Your task to perform on an android device: Go to CNN.com Image 0: 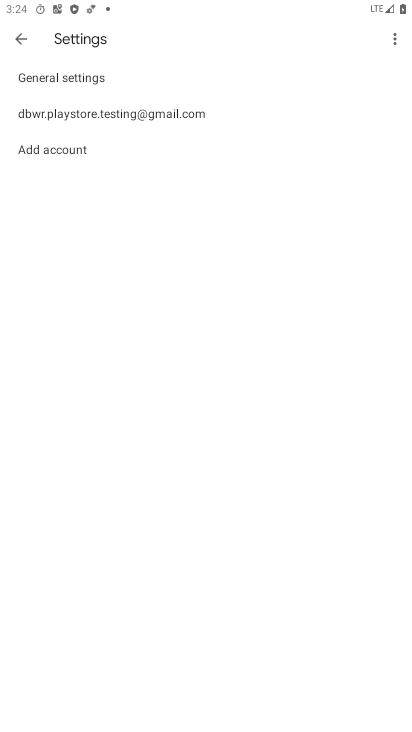
Step 0: press home button
Your task to perform on an android device: Go to CNN.com Image 1: 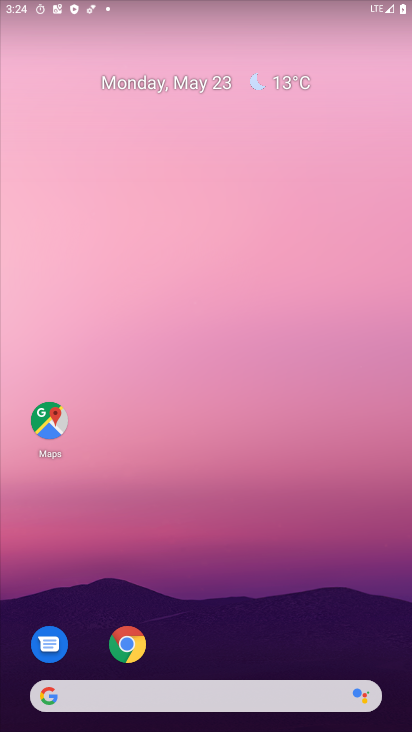
Step 1: click (128, 655)
Your task to perform on an android device: Go to CNN.com Image 2: 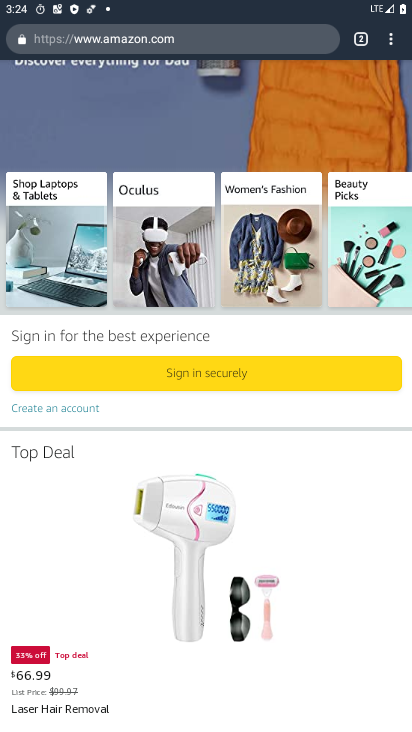
Step 2: click (353, 29)
Your task to perform on an android device: Go to CNN.com Image 3: 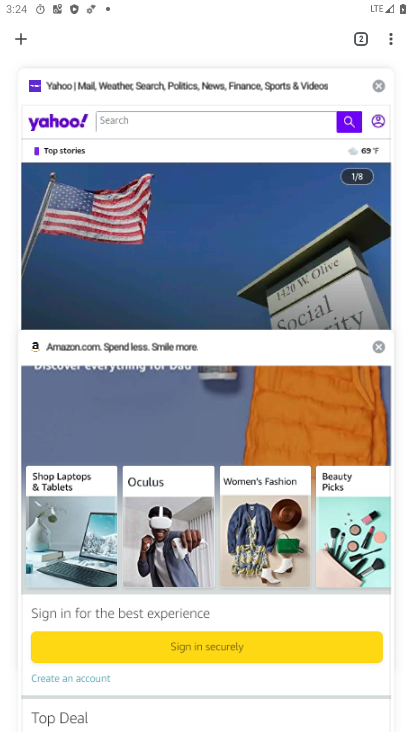
Step 3: click (28, 40)
Your task to perform on an android device: Go to CNN.com Image 4: 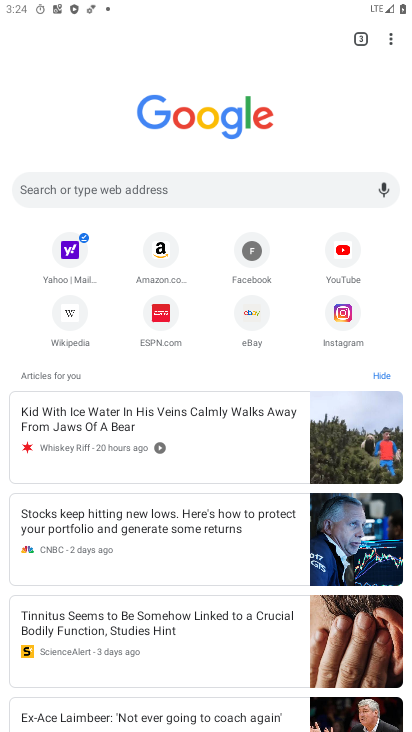
Step 4: click (147, 191)
Your task to perform on an android device: Go to CNN.com Image 5: 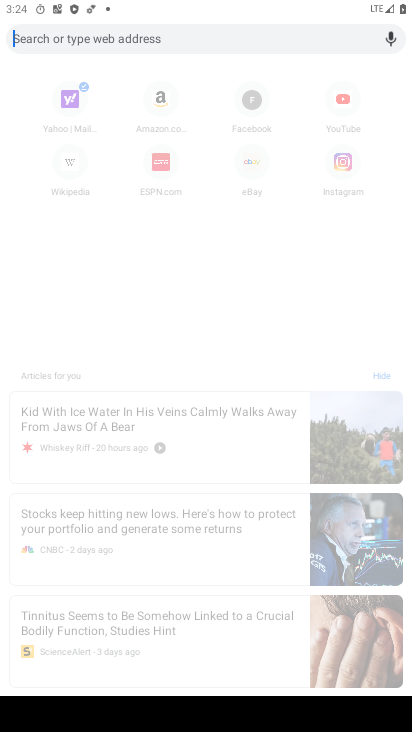
Step 5: type "cnn"
Your task to perform on an android device: Go to CNN.com Image 6: 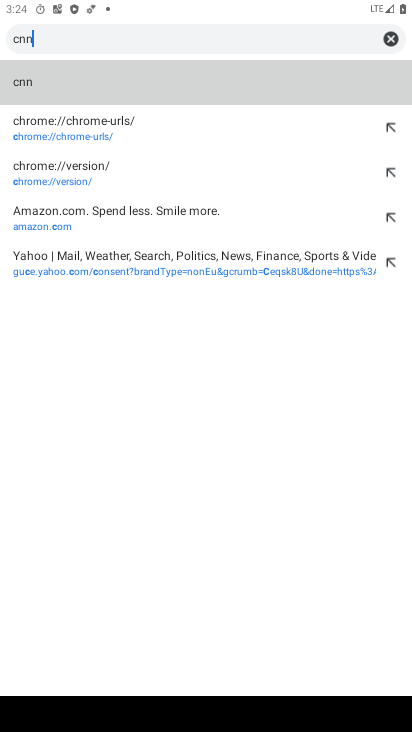
Step 6: type ""
Your task to perform on an android device: Go to CNN.com Image 7: 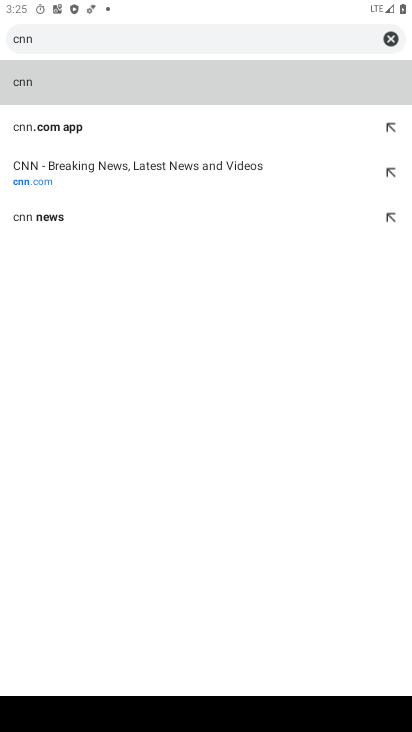
Step 7: click (53, 167)
Your task to perform on an android device: Go to CNN.com Image 8: 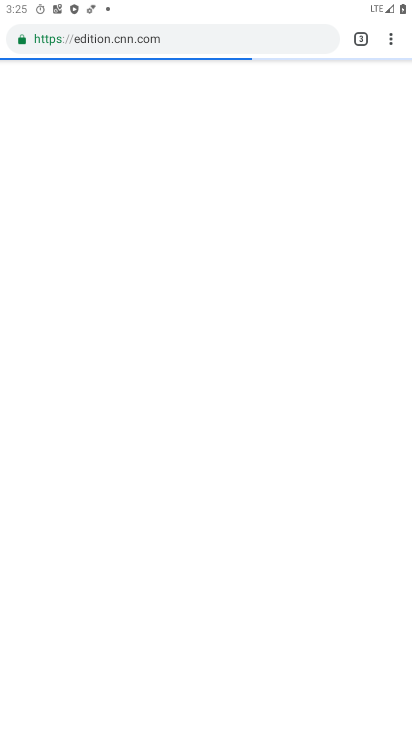
Step 8: task complete